Your task to perform on an android device: Search for "logitech g933" on costco, select the first entry, add it to the cart, then select checkout. Image 0: 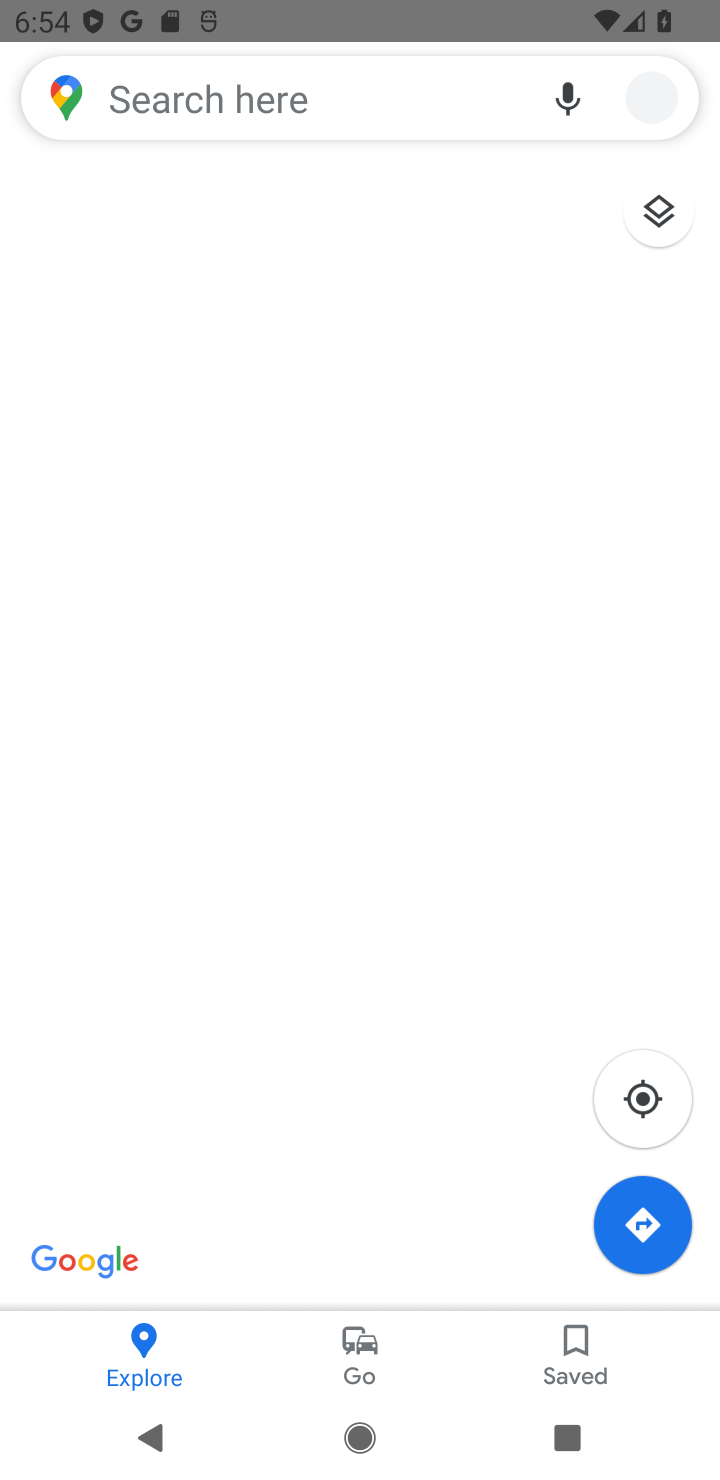
Step 0: press home button
Your task to perform on an android device: Search for "logitech g933" on costco, select the first entry, add it to the cart, then select checkout. Image 1: 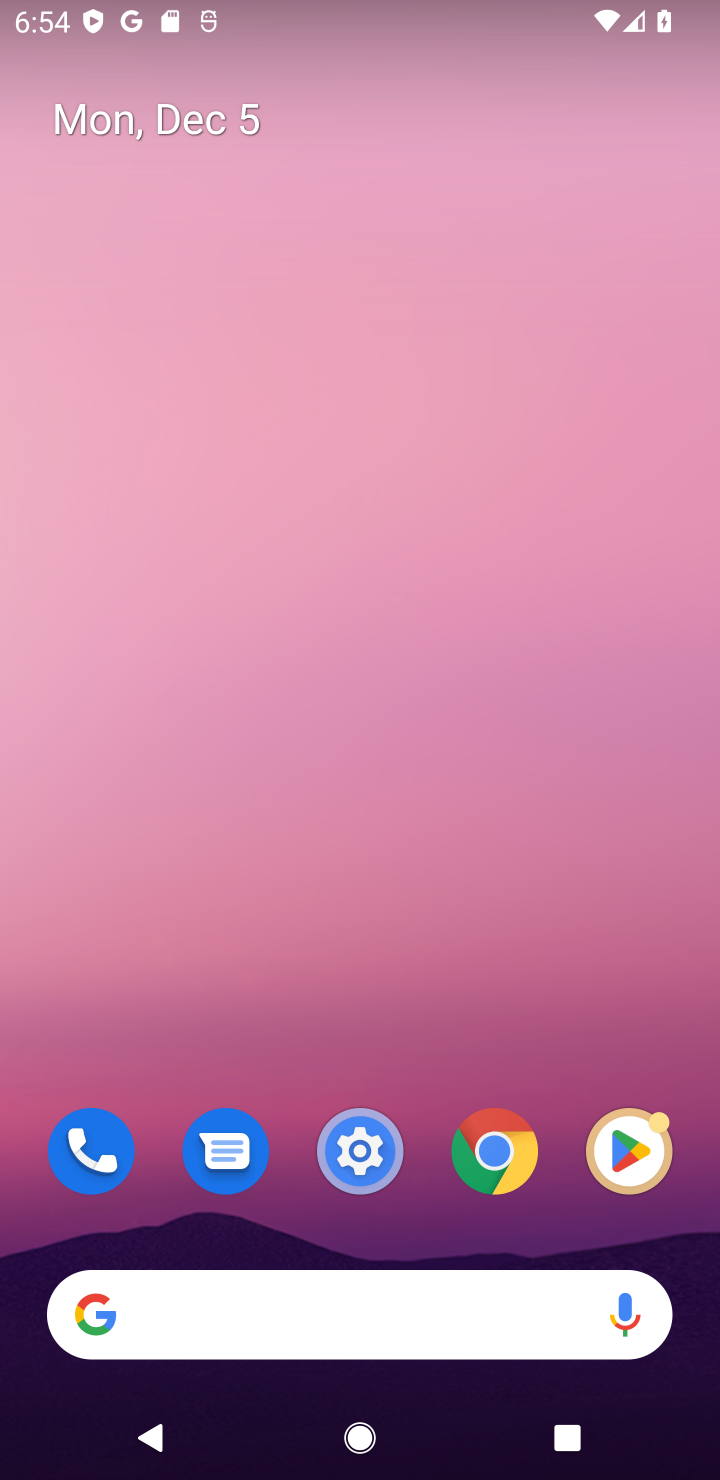
Step 1: press home button
Your task to perform on an android device: Search for "logitech g933" on costco, select the first entry, add it to the cart, then select checkout. Image 2: 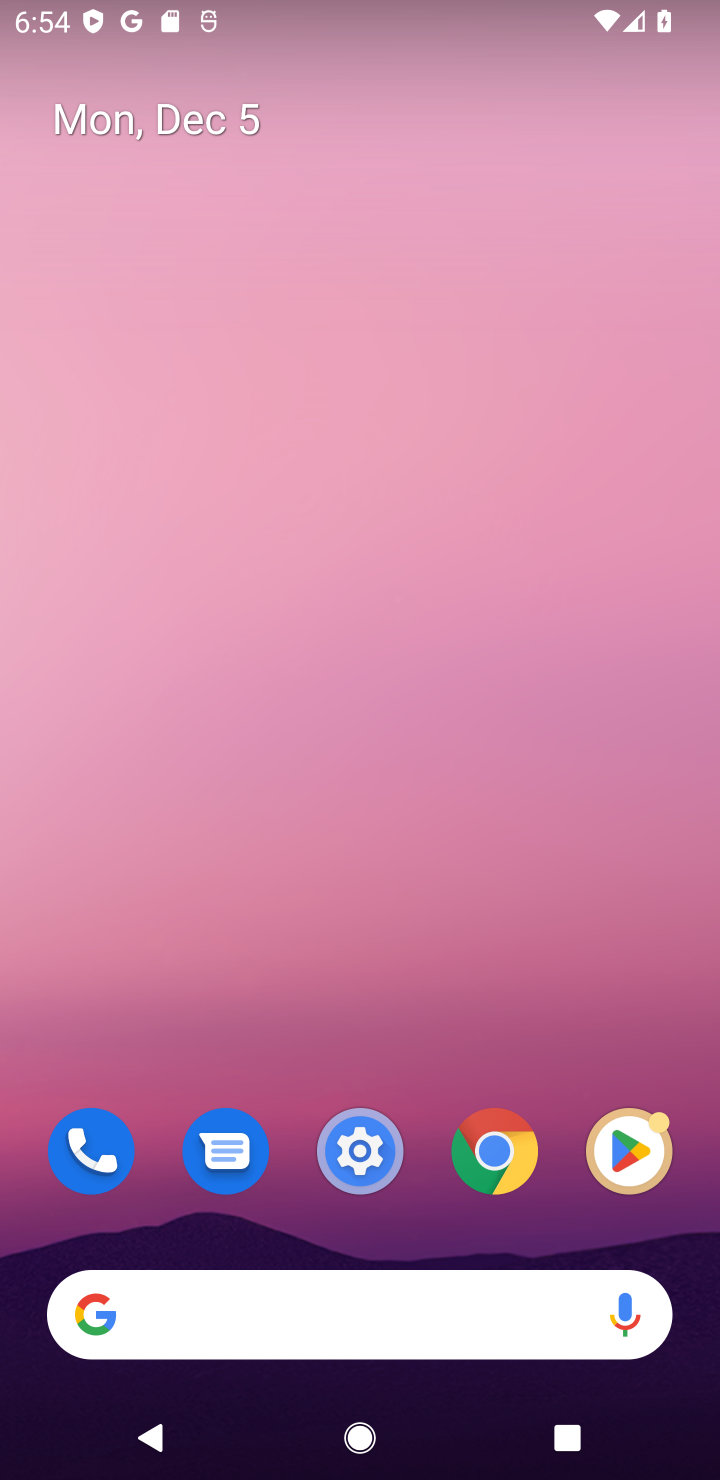
Step 2: click (430, 1338)
Your task to perform on an android device: Search for "logitech g933" on costco, select the first entry, add it to the cart, then select checkout. Image 3: 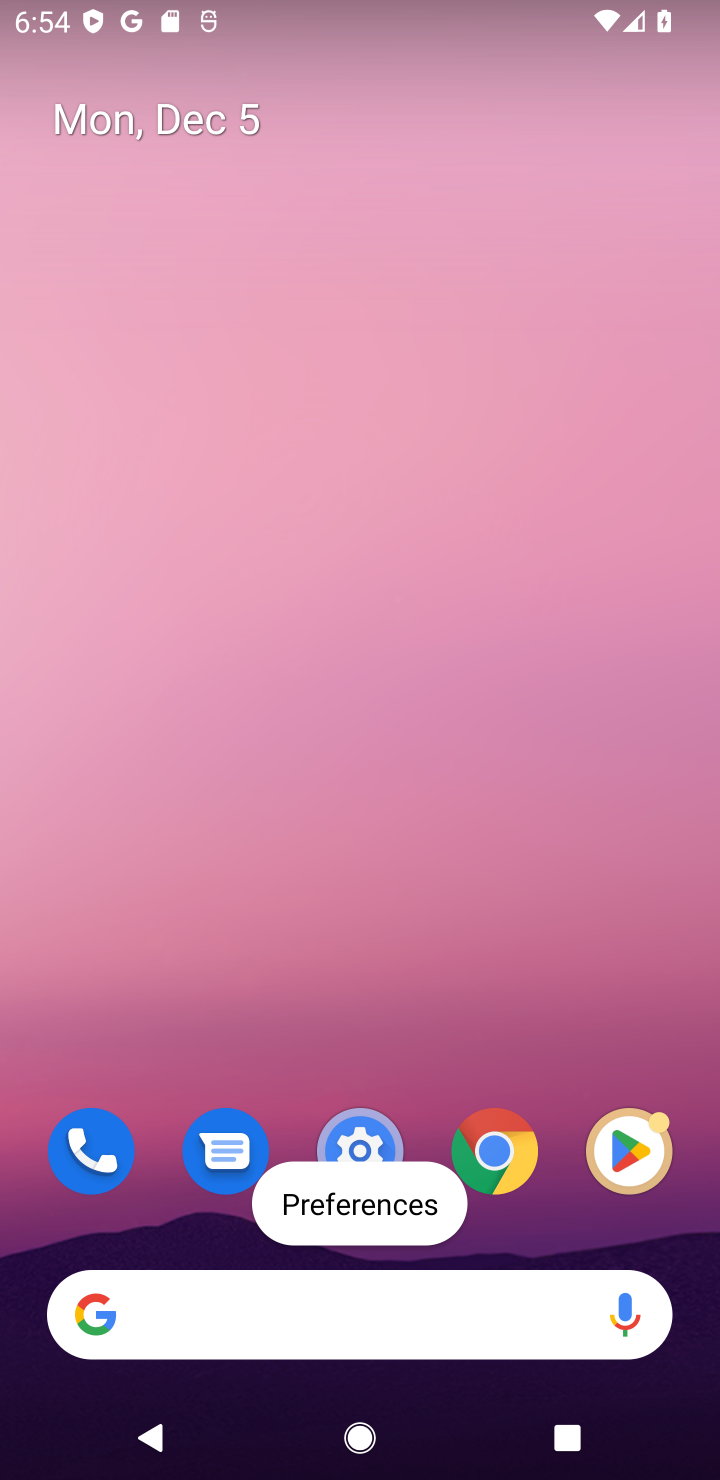
Step 3: type "costco"
Your task to perform on an android device: Search for "logitech g933" on costco, select the first entry, add it to the cart, then select checkout. Image 4: 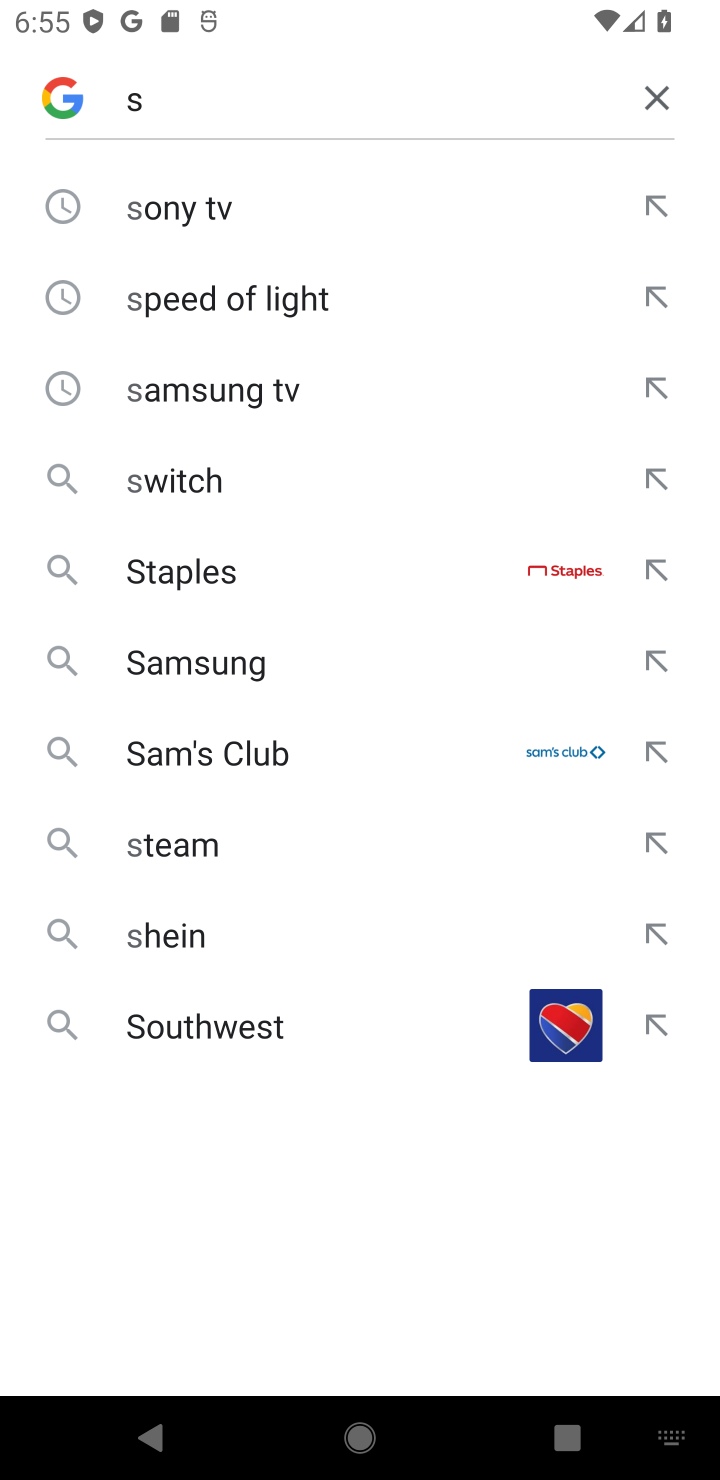
Step 4: click (667, 97)
Your task to perform on an android device: Search for "logitech g933" on costco, select the first entry, add it to the cart, then select checkout. Image 5: 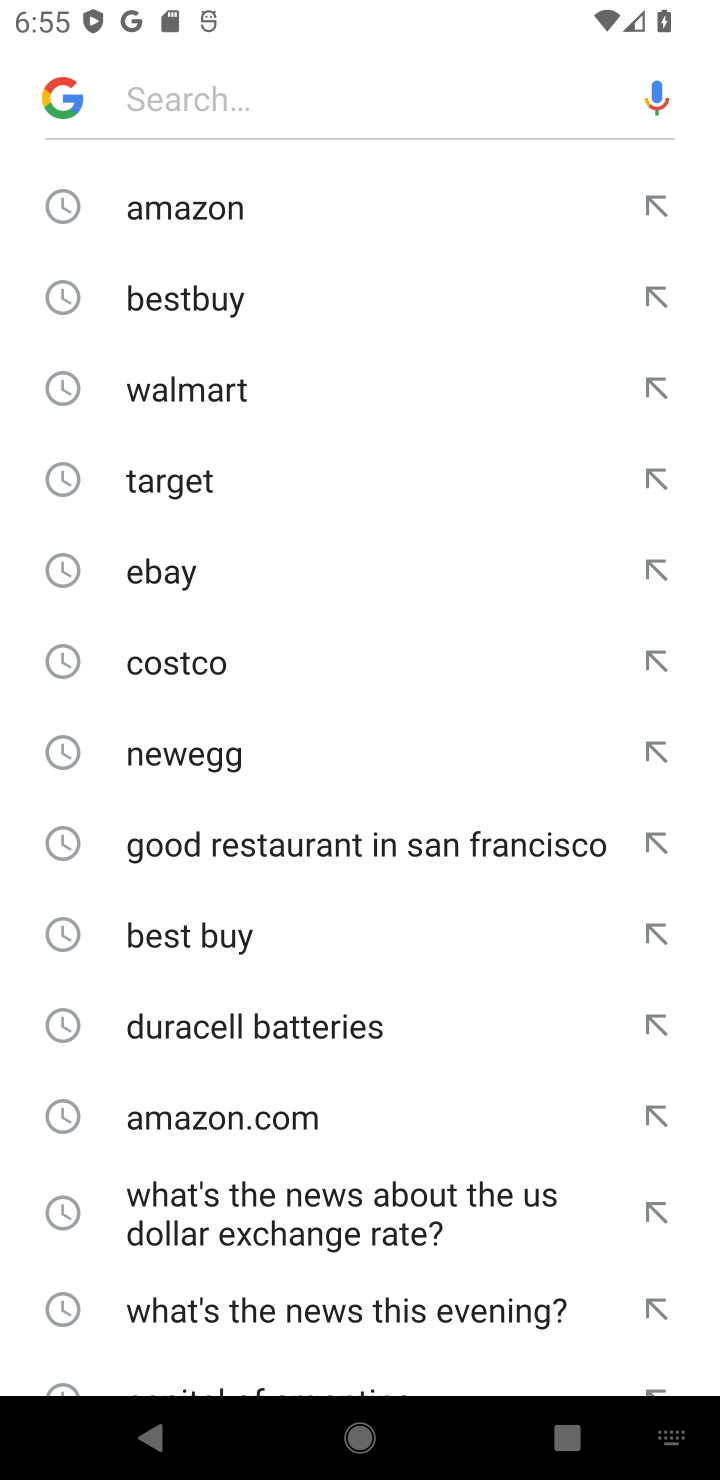
Step 5: type "costco"
Your task to perform on an android device: Search for "logitech g933" on costco, select the first entry, add it to the cart, then select checkout. Image 6: 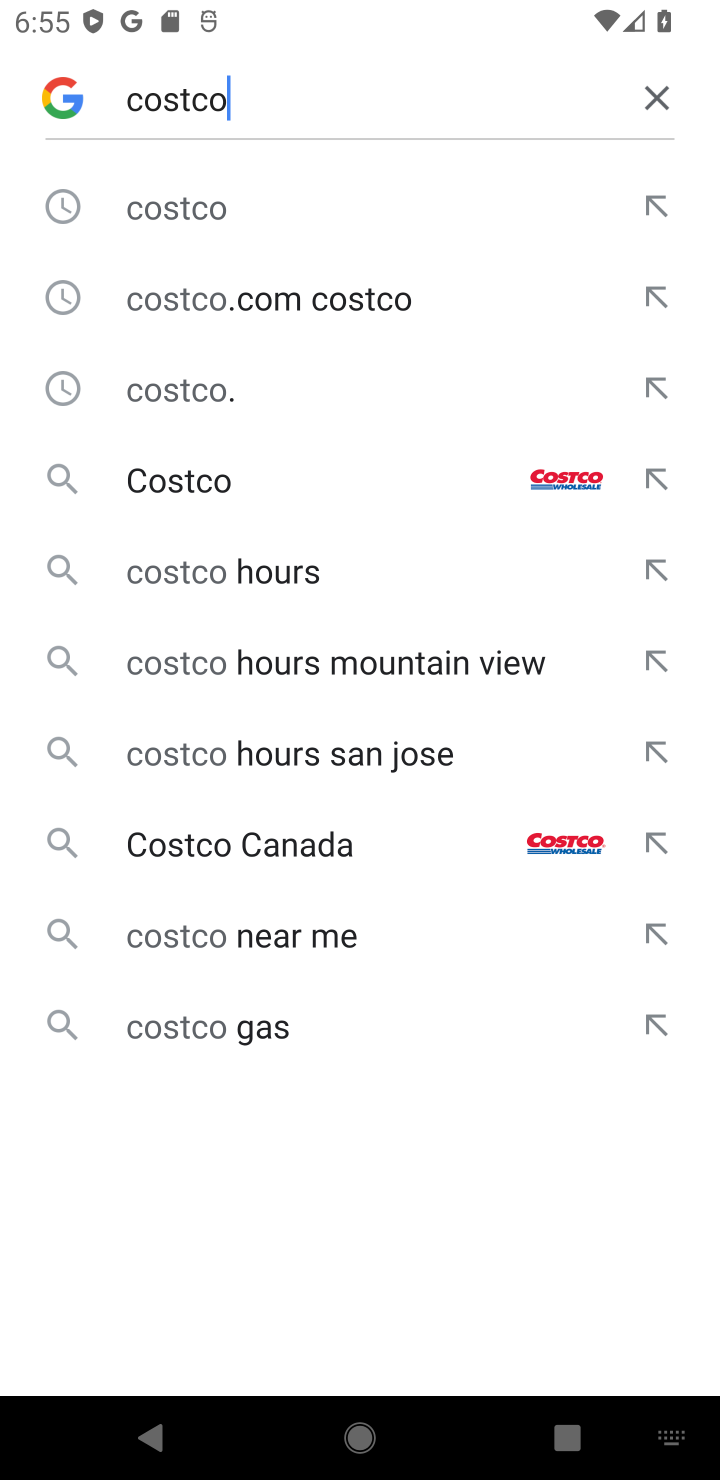
Step 6: click (179, 198)
Your task to perform on an android device: Search for "logitech g933" on costco, select the first entry, add it to the cart, then select checkout. Image 7: 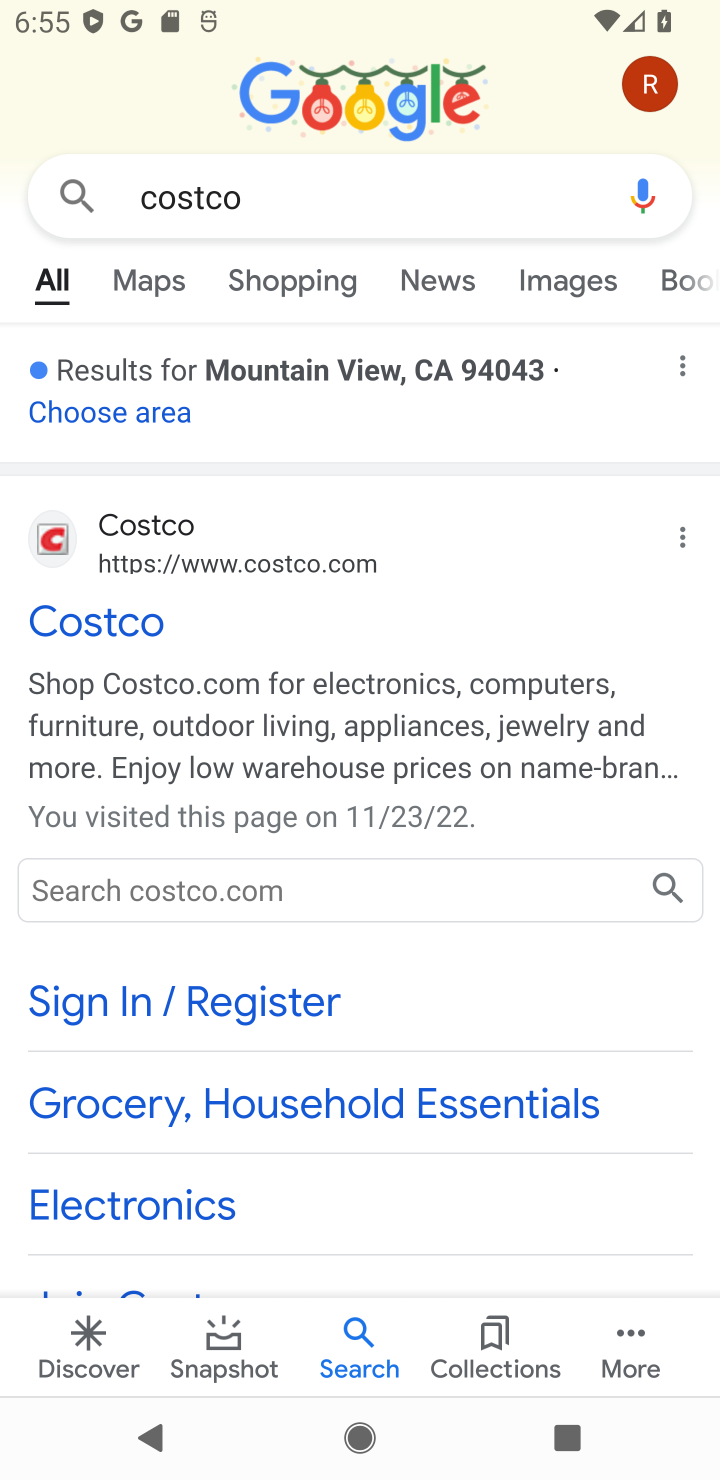
Step 7: click (21, 637)
Your task to perform on an android device: Search for "logitech g933" on costco, select the first entry, add it to the cart, then select checkout. Image 8: 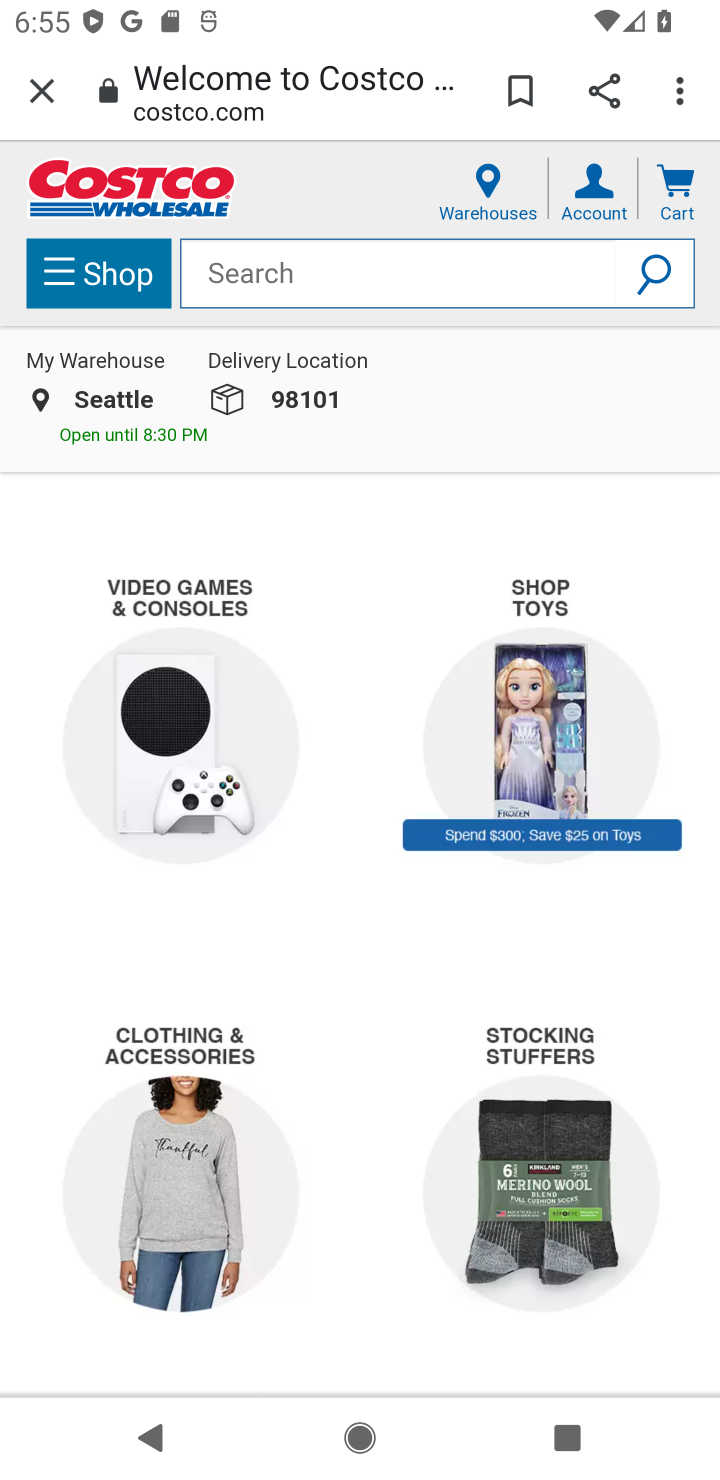
Step 8: task complete